Your task to perform on an android device: find photos in the google photos app Image 0: 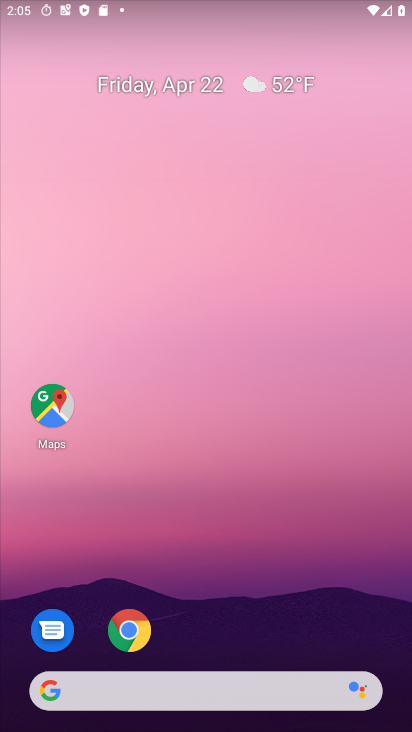
Step 0: drag from (378, 643) to (333, 388)
Your task to perform on an android device: find photos in the google photos app Image 1: 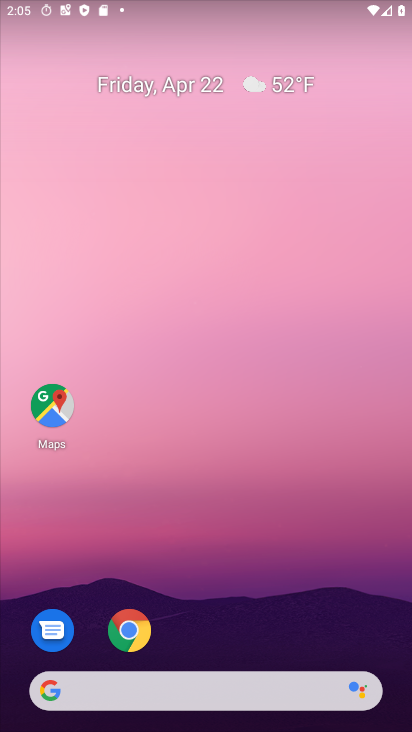
Step 1: drag from (341, 547) to (269, 194)
Your task to perform on an android device: find photos in the google photos app Image 2: 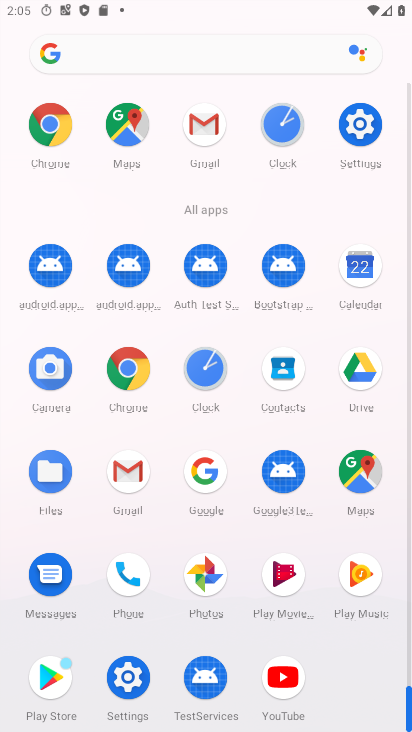
Step 2: click (209, 562)
Your task to perform on an android device: find photos in the google photos app Image 3: 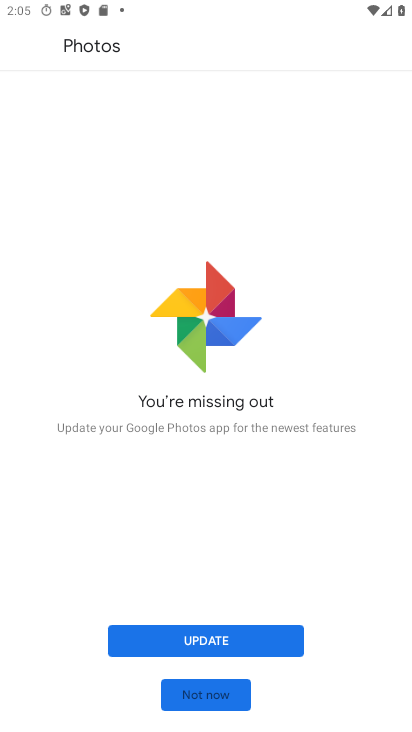
Step 3: click (212, 636)
Your task to perform on an android device: find photos in the google photos app Image 4: 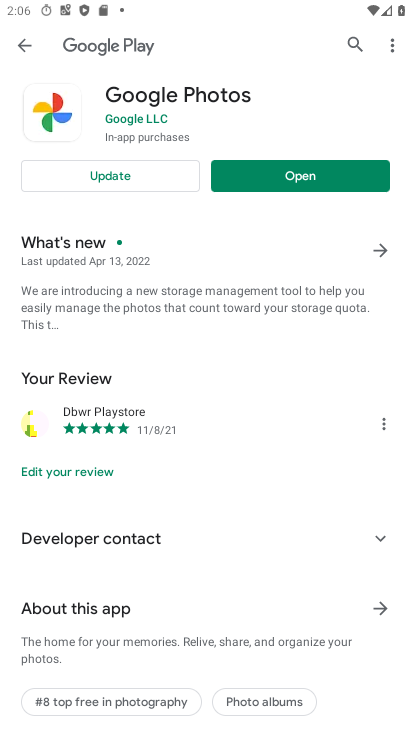
Step 4: click (101, 169)
Your task to perform on an android device: find photos in the google photos app Image 5: 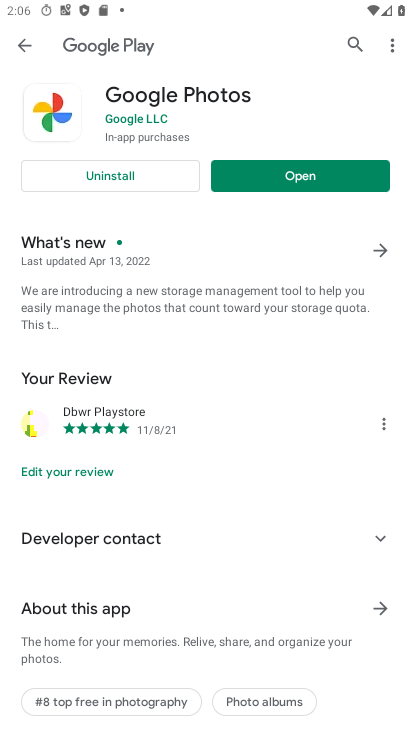
Step 5: click (276, 172)
Your task to perform on an android device: find photos in the google photos app Image 6: 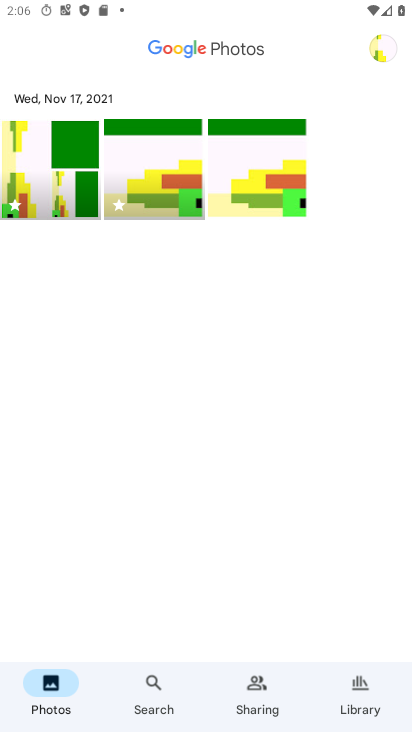
Step 6: click (144, 170)
Your task to perform on an android device: find photos in the google photos app Image 7: 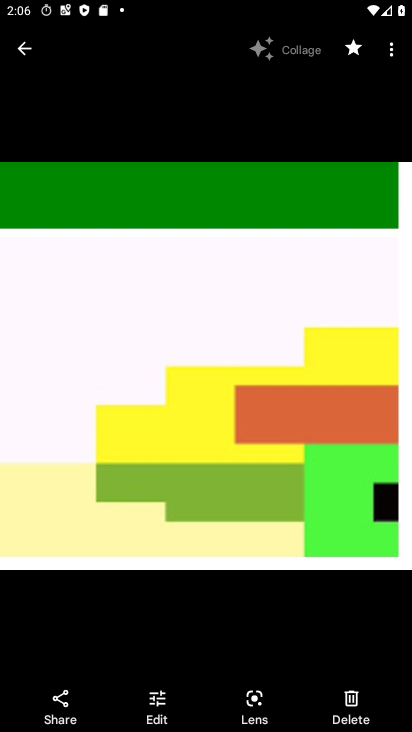
Step 7: click (31, 45)
Your task to perform on an android device: find photos in the google photos app Image 8: 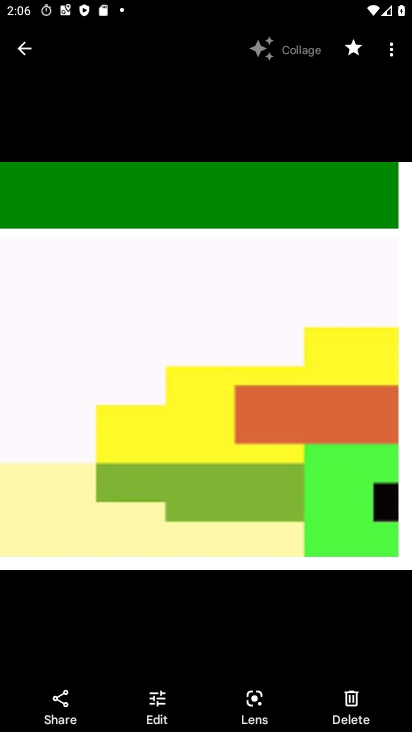
Step 8: click (23, 47)
Your task to perform on an android device: find photos in the google photos app Image 9: 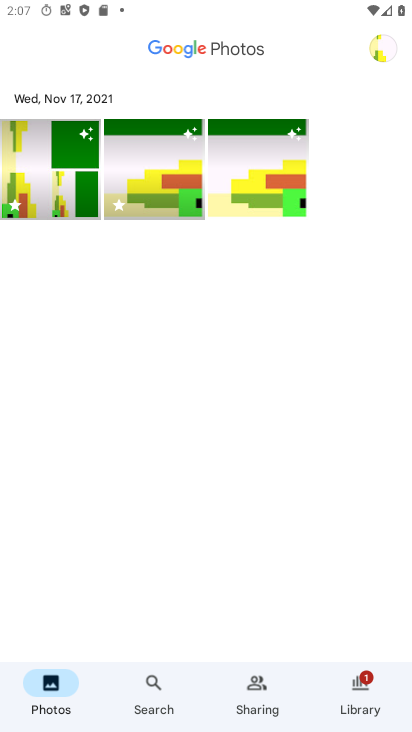
Step 9: click (14, 134)
Your task to perform on an android device: find photos in the google photos app Image 10: 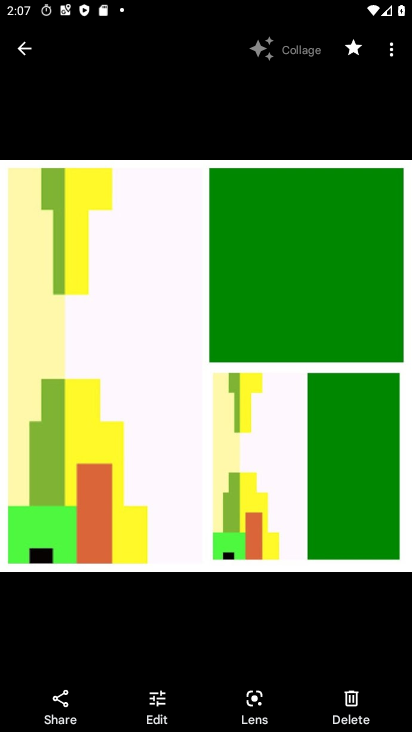
Step 10: click (18, 47)
Your task to perform on an android device: find photos in the google photos app Image 11: 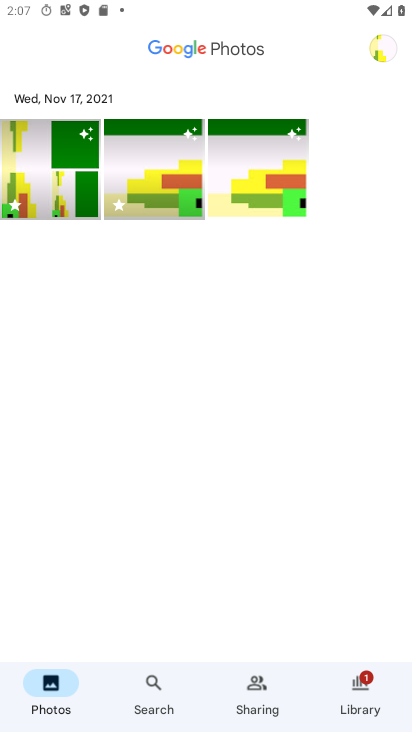
Step 11: task complete